Your task to perform on an android device: What's the weather going to be this weekend? Image 0: 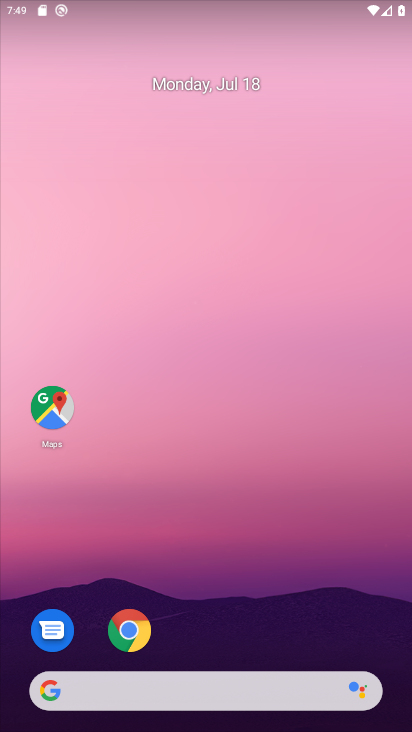
Step 0: drag from (206, 656) to (210, 279)
Your task to perform on an android device: What's the weather going to be this weekend? Image 1: 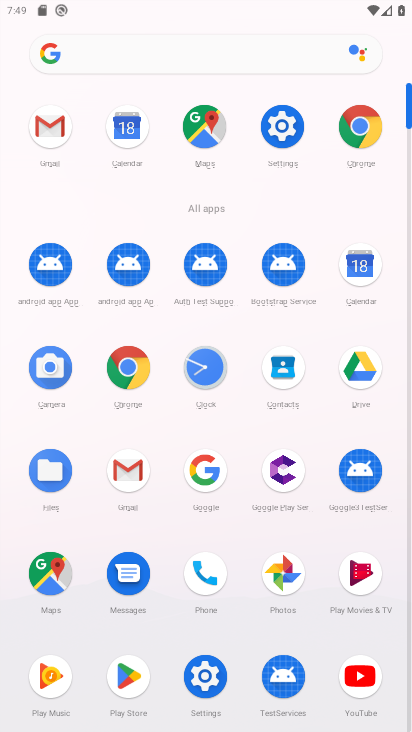
Step 1: click (132, 128)
Your task to perform on an android device: What's the weather going to be this weekend? Image 2: 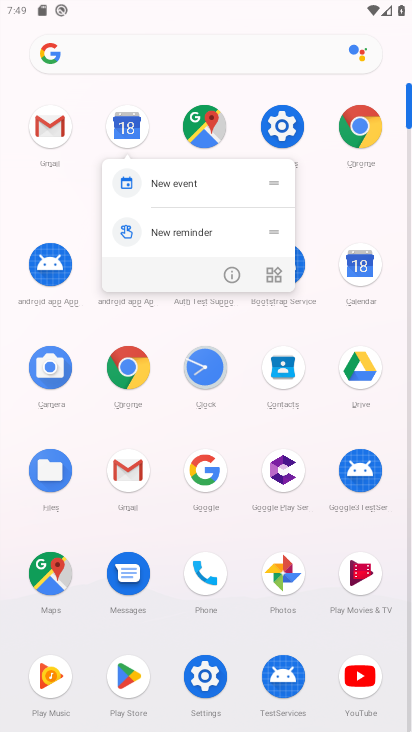
Step 2: click (132, 128)
Your task to perform on an android device: What's the weather going to be this weekend? Image 3: 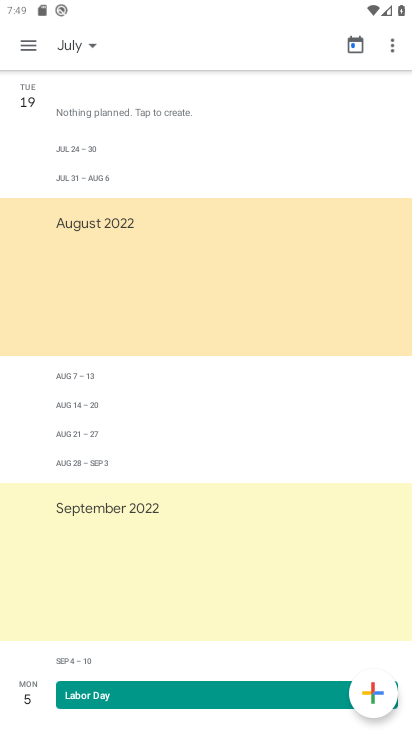
Step 3: click (28, 44)
Your task to perform on an android device: What's the weather going to be this weekend? Image 4: 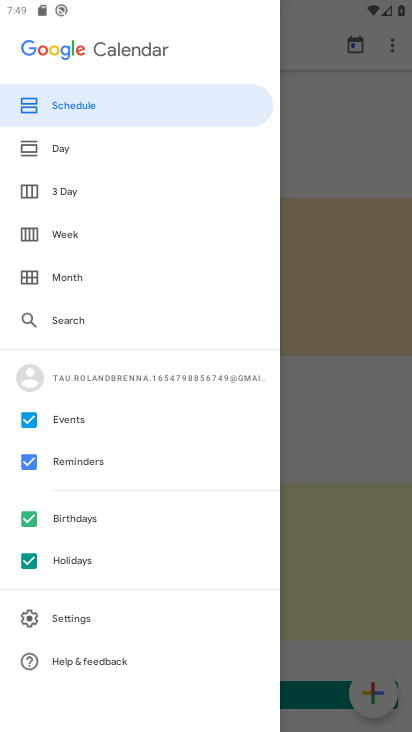
Step 4: press home button
Your task to perform on an android device: What's the weather going to be this weekend? Image 5: 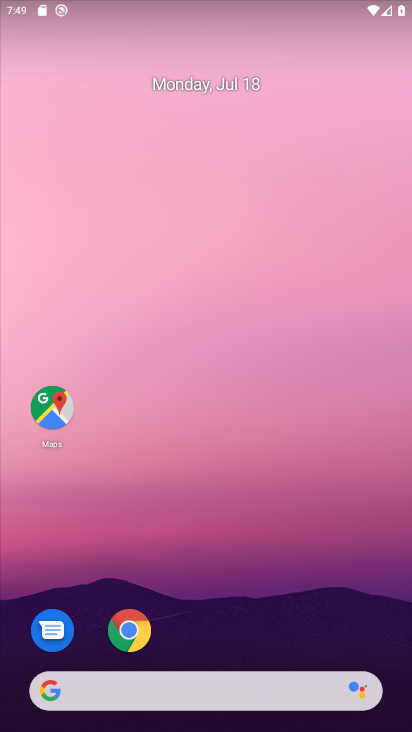
Step 5: drag from (186, 677) to (240, 330)
Your task to perform on an android device: What's the weather going to be this weekend? Image 6: 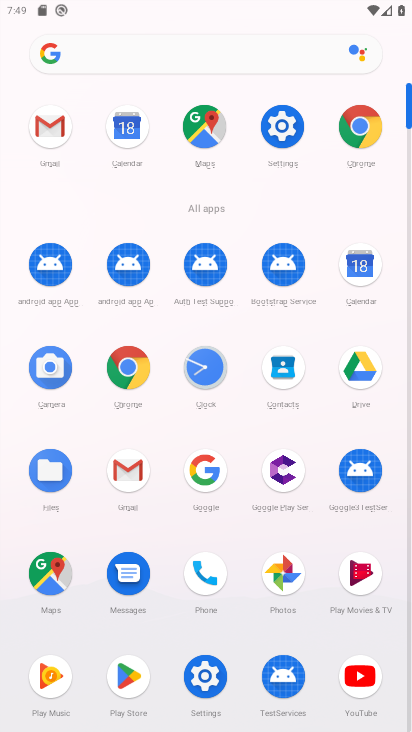
Step 6: click (129, 378)
Your task to perform on an android device: What's the weather going to be this weekend? Image 7: 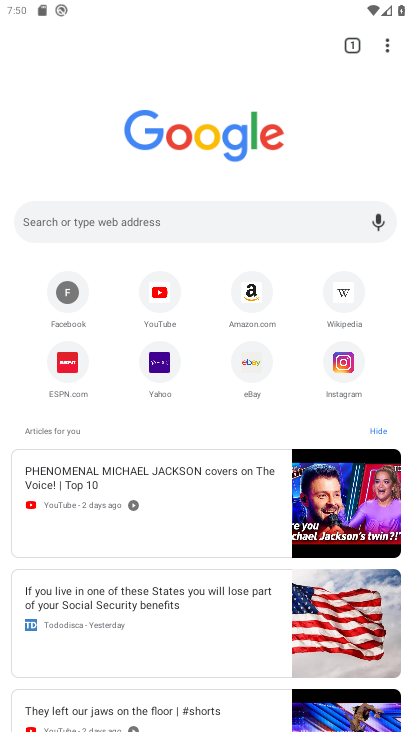
Step 7: click (157, 216)
Your task to perform on an android device: What's the weather going to be this weekend? Image 8: 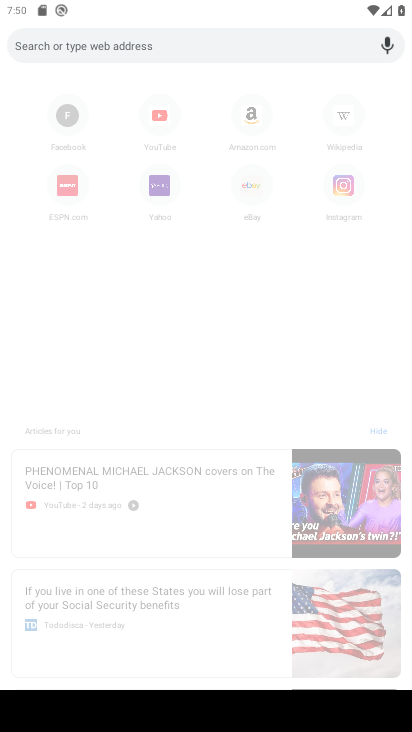
Step 8: type "What's the weather going to be this weekend? "
Your task to perform on an android device: What's the weather going to be this weekend? Image 9: 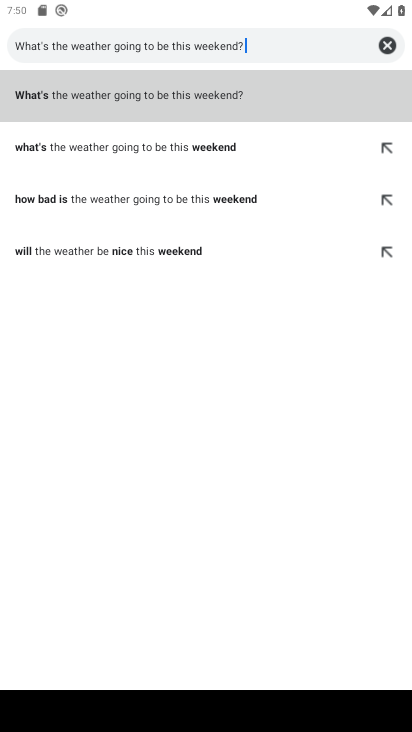
Step 9: click (158, 81)
Your task to perform on an android device: What's the weather going to be this weekend? Image 10: 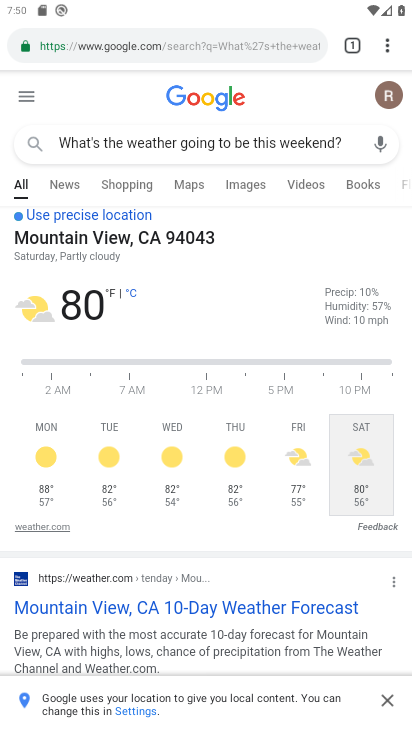
Step 10: task complete